Your task to perform on an android device: Search for the best rated running shoes on Nike.com Image 0: 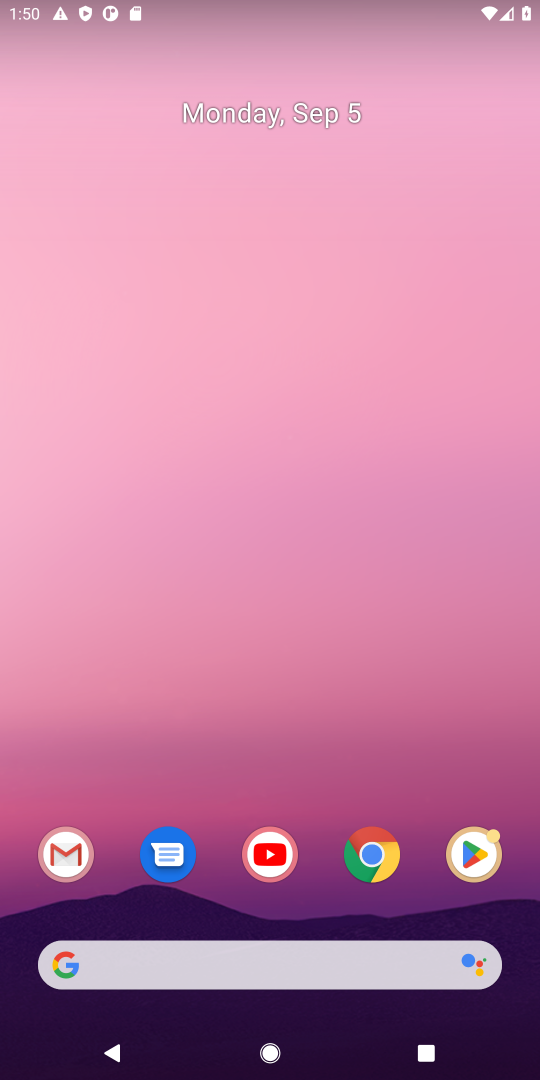
Step 0: click (360, 956)
Your task to perform on an android device: Search for the best rated running shoes on Nike.com Image 1: 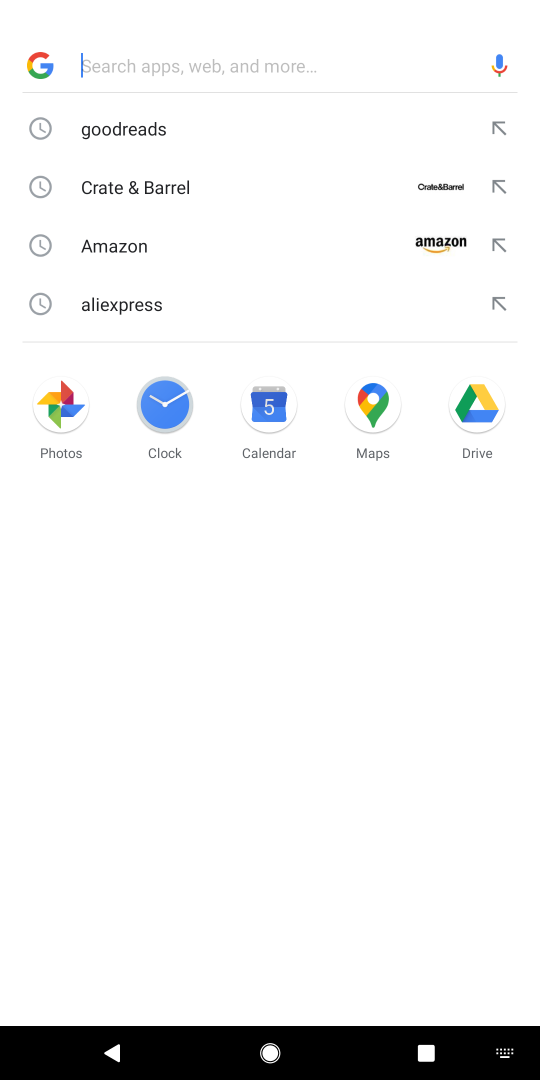
Step 1: press enter
Your task to perform on an android device: Search for the best rated running shoes on Nike.com Image 2: 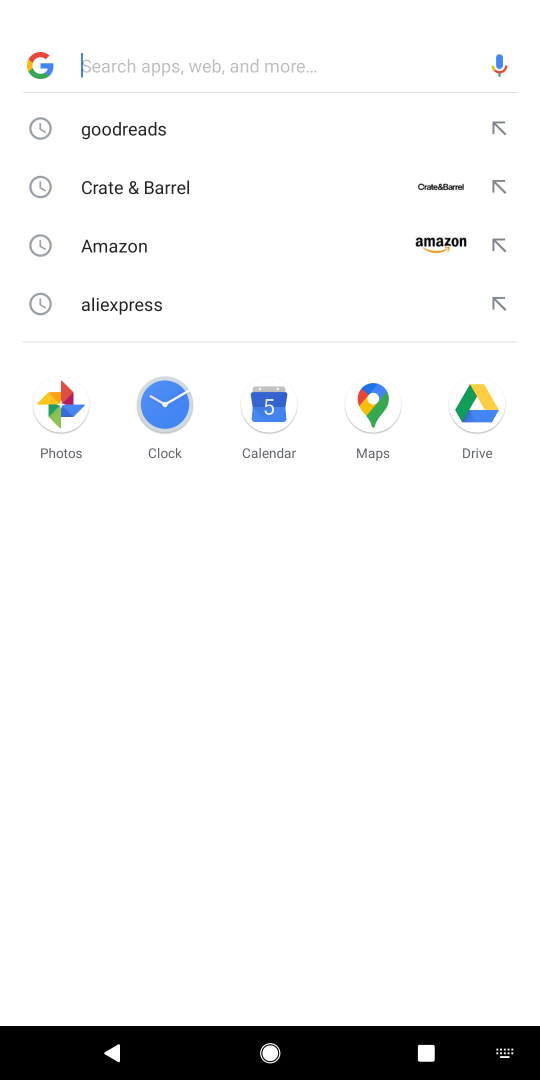
Step 2: type "nike.com"
Your task to perform on an android device: Search for the best rated running shoes on Nike.com Image 3: 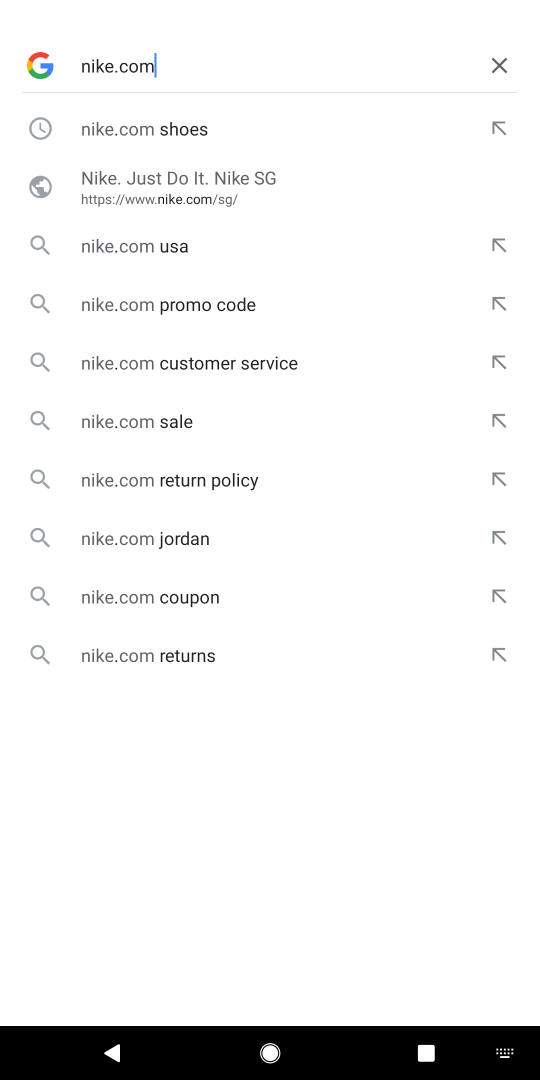
Step 3: click (200, 174)
Your task to perform on an android device: Search for the best rated running shoes on Nike.com Image 4: 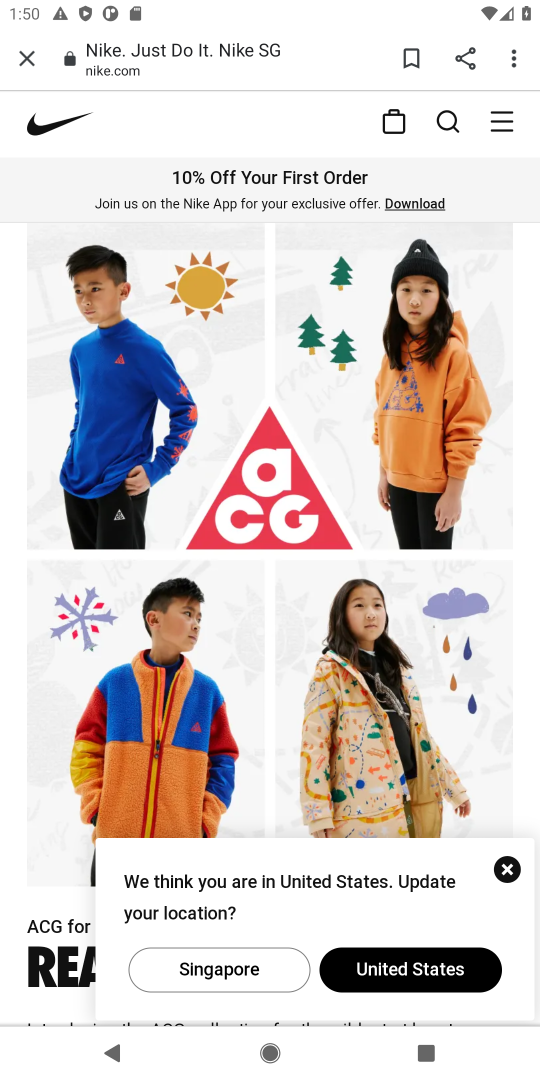
Step 4: click (451, 122)
Your task to perform on an android device: Search for the best rated running shoes on Nike.com Image 5: 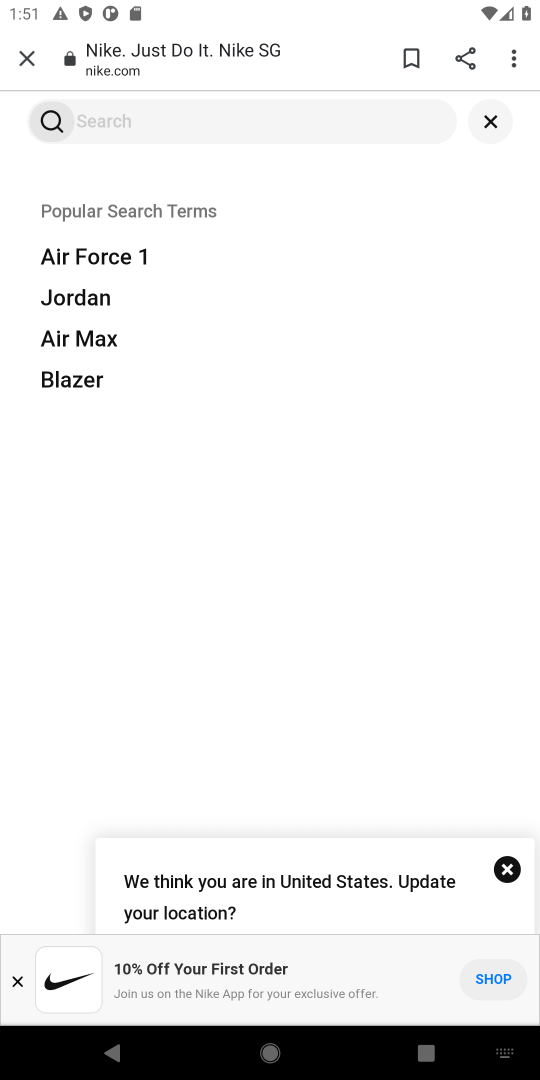
Step 5: type "best rated running shoes"
Your task to perform on an android device: Search for the best rated running shoes on Nike.com Image 6: 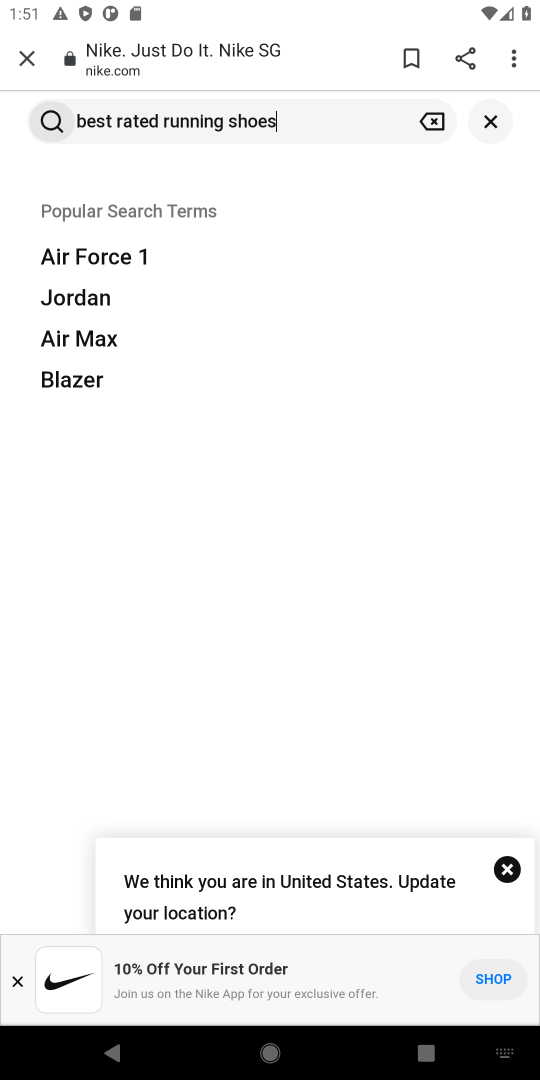
Step 6: press enter
Your task to perform on an android device: Search for the best rated running shoes on Nike.com Image 7: 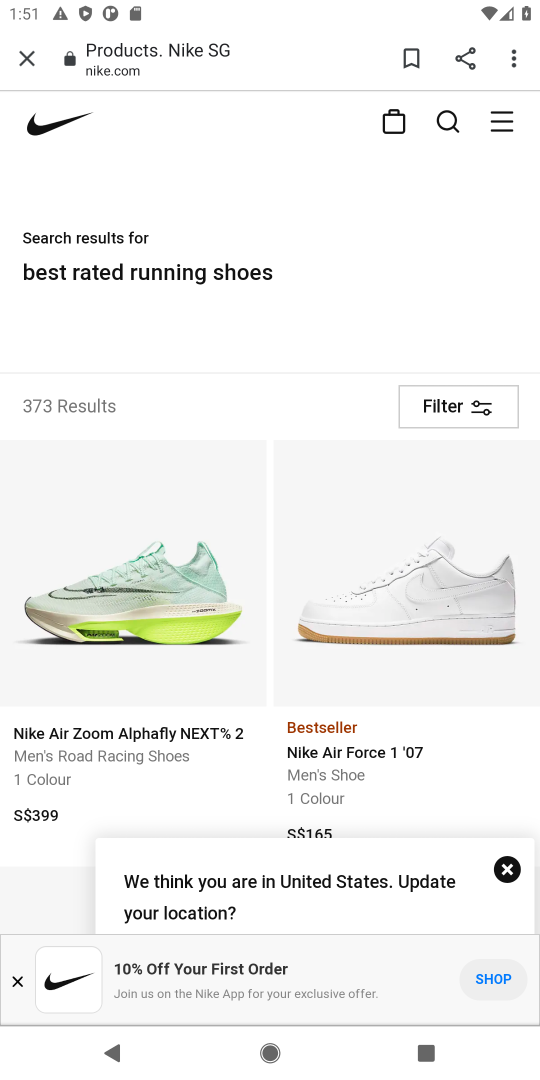
Step 7: task complete